Your task to perform on an android device: Open Google Image 0: 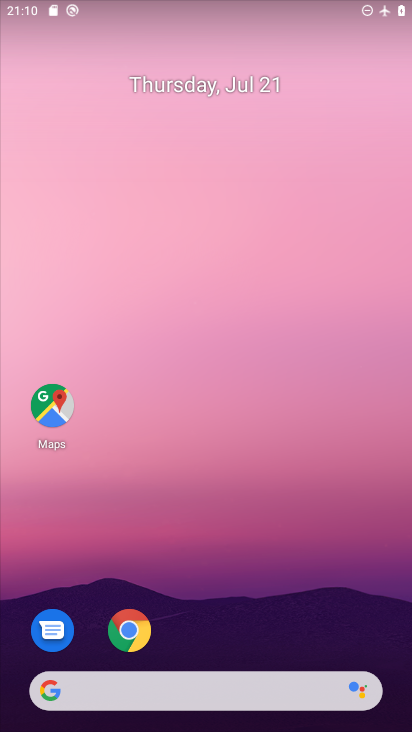
Step 0: drag from (279, 591) to (226, 55)
Your task to perform on an android device: Open Google Image 1: 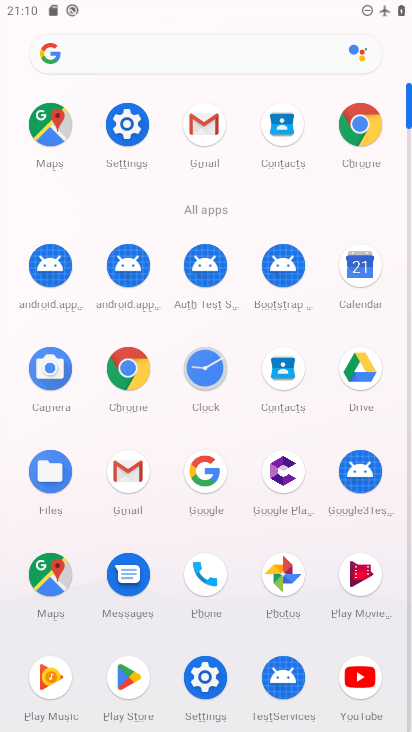
Step 1: click (206, 460)
Your task to perform on an android device: Open Google Image 2: 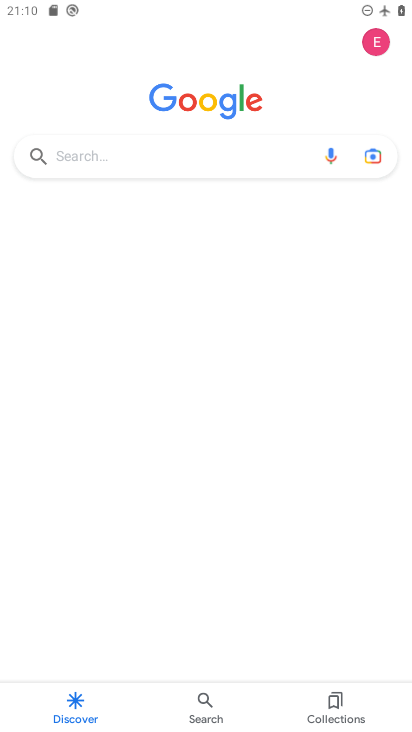
Step 2: task complete